Your task to perform on an android device: Go to eBay Image 0: 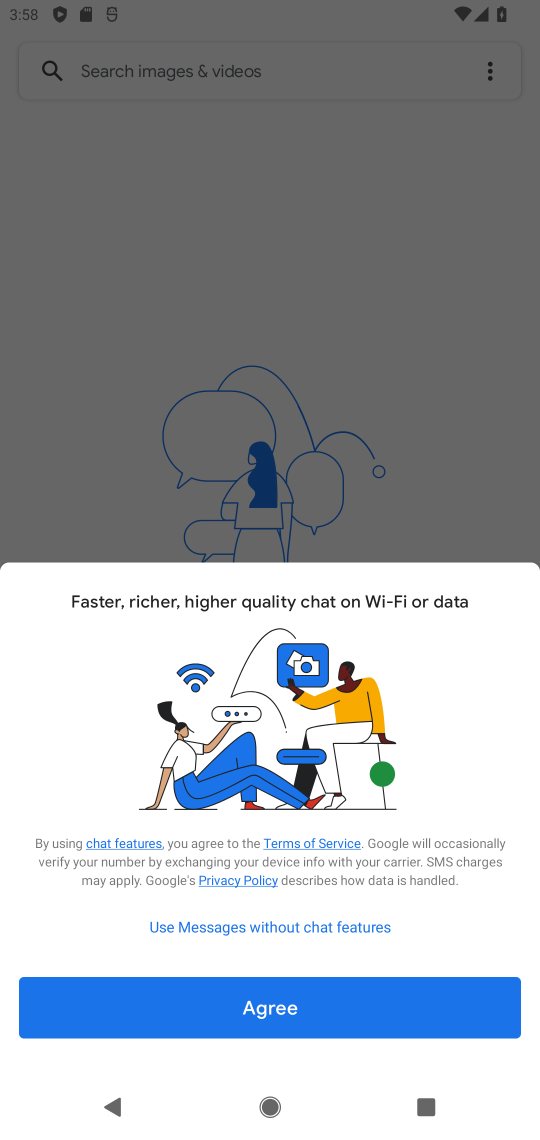
Step 0: press home button
Your task to perform on an android device: Go to eBay Image 1: 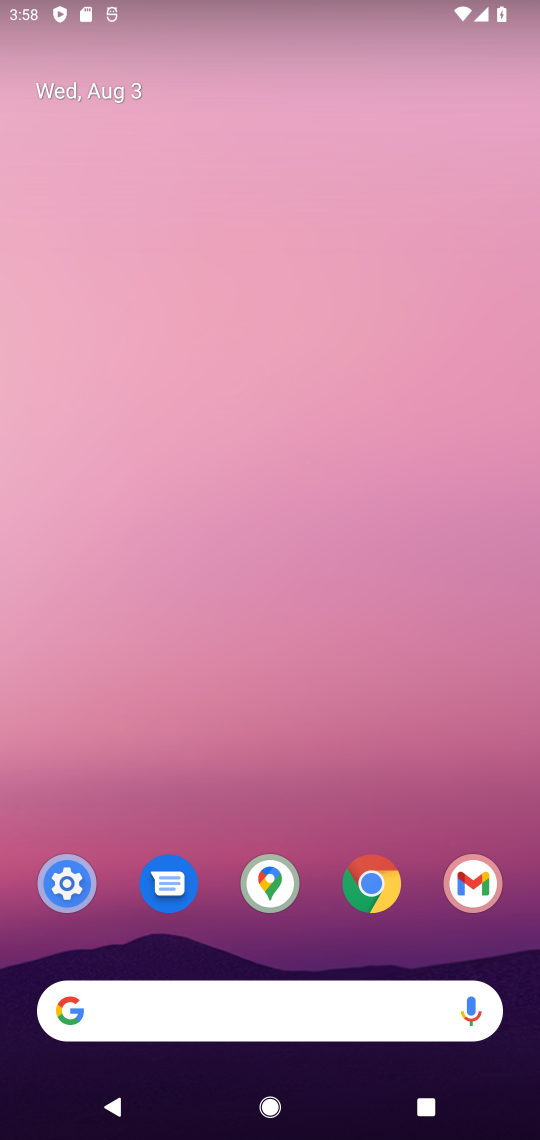
Step 1: drag from (256, 953) to (282, 47)
Your task to perform on an android device: Go to eBay Image 2: 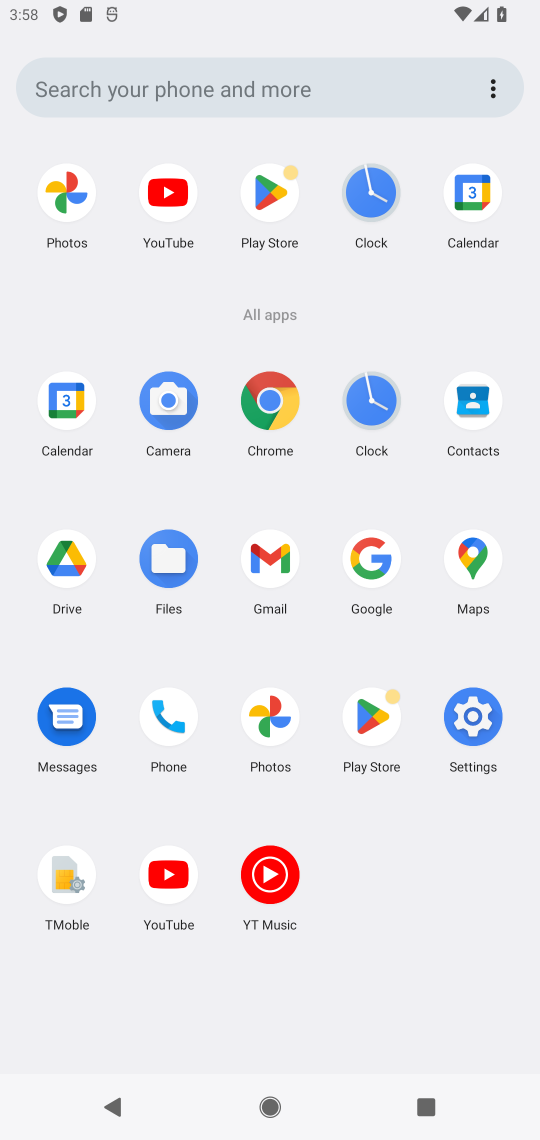
Step 2: click (280, 421)
Your task to perform on an android device: Go to eBay Image 3: 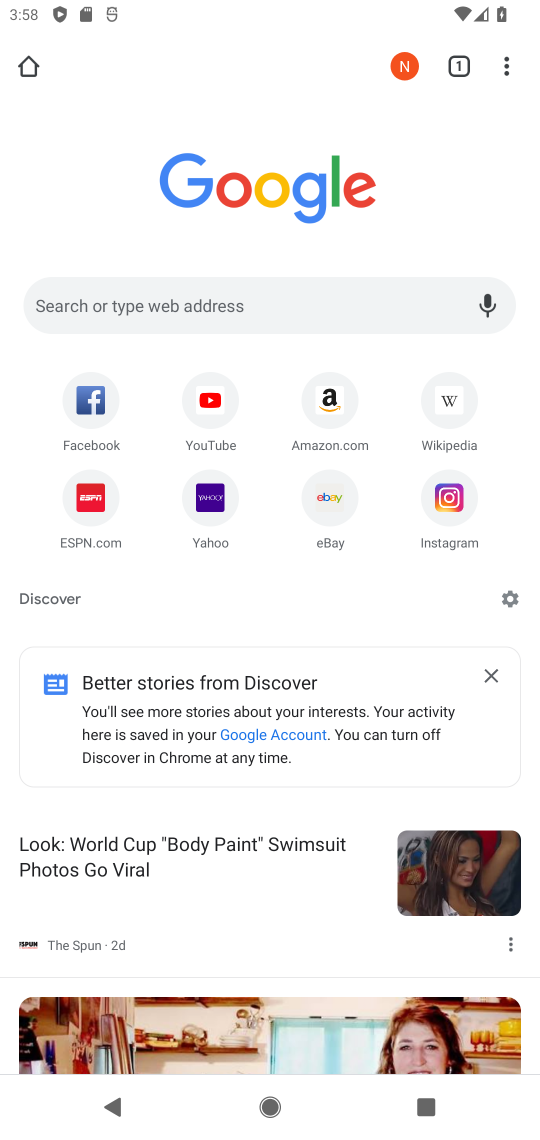
Step 3: click (342, 518)
Your task to perform on an android device: Go to eBay Image 4: 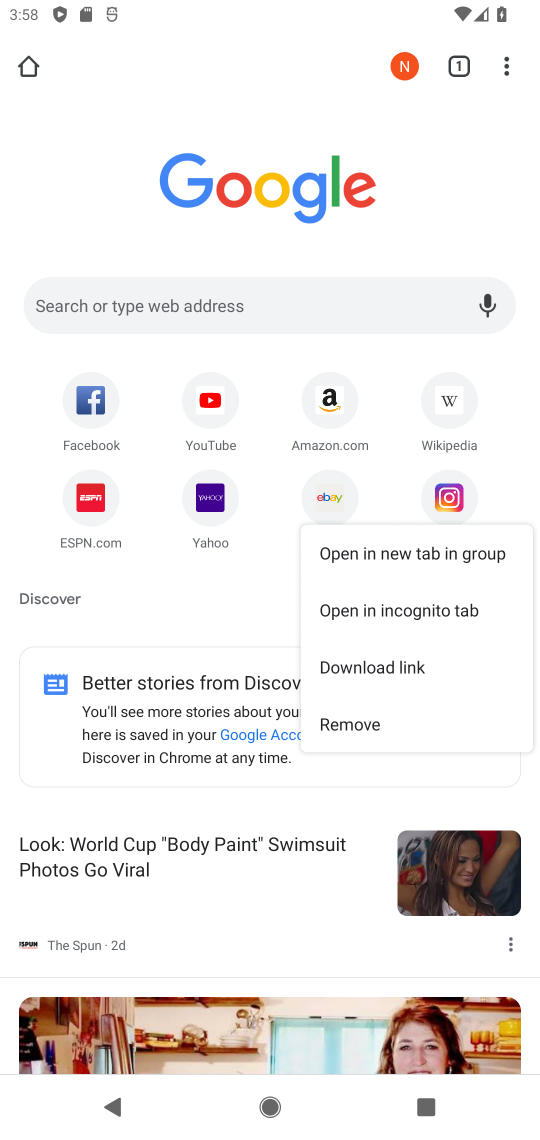
Step 4: click (327, 499)
Your task to perform on an android device: Go to eBay Image 5: 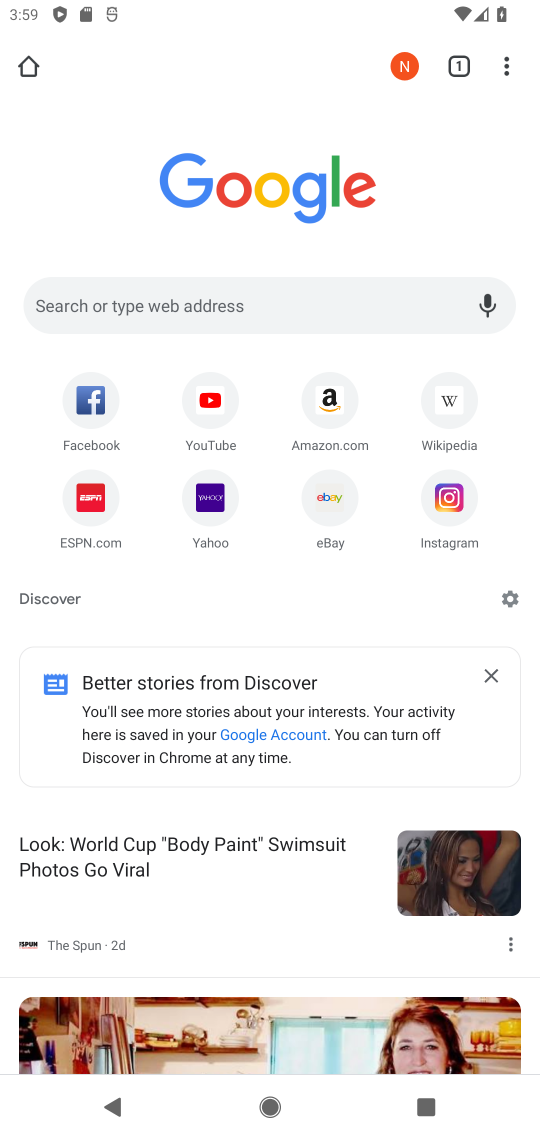
Step 5: click (325, 548)
Your task to perform on an android device: Go to eBay Image 6: 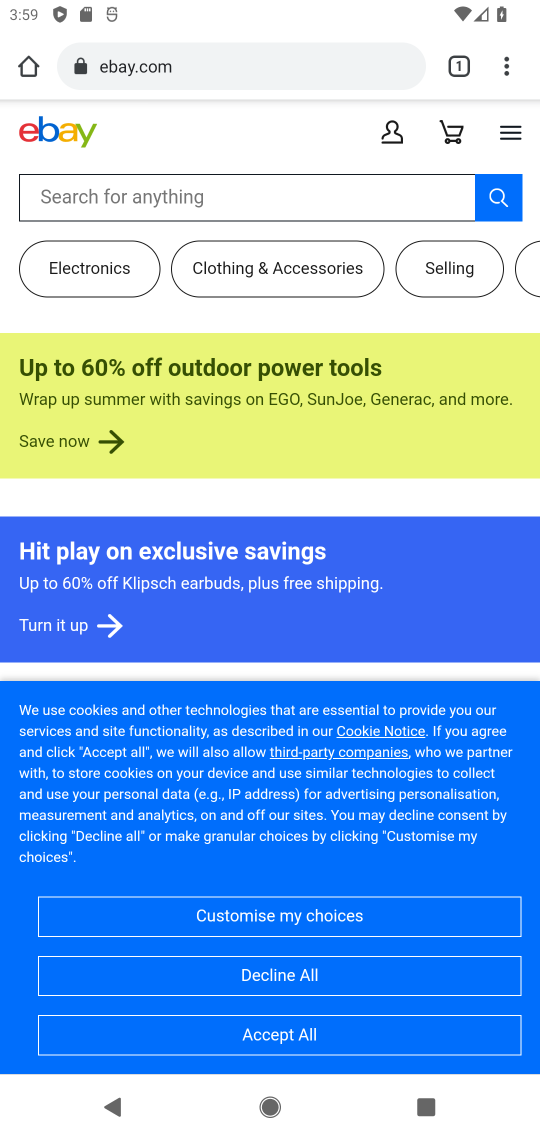
Step 6: task complete